Your task to perform on an android device: turn on data saver in the chrome app Image 0: 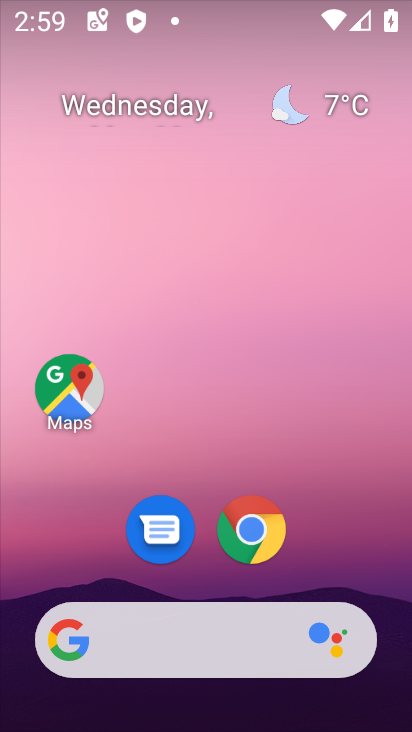
Step 0: click (254, 537)
Your task to perform on an android device: turn on data saver in the chrome app Image 1: 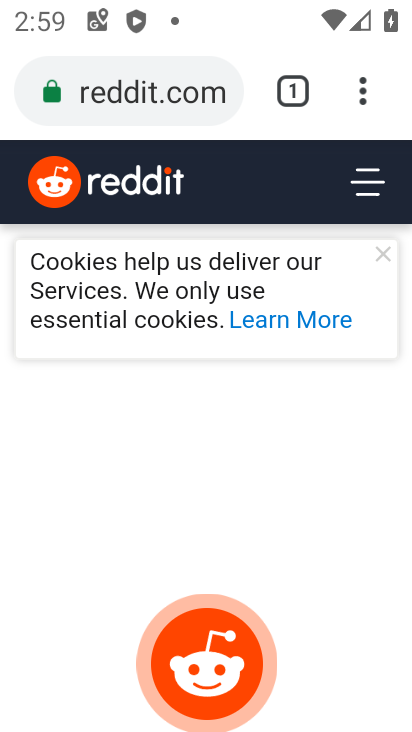
Step 1: click (364, 94)
Your task to perform on an android device: turn on data saver in the chrome app Image 2: 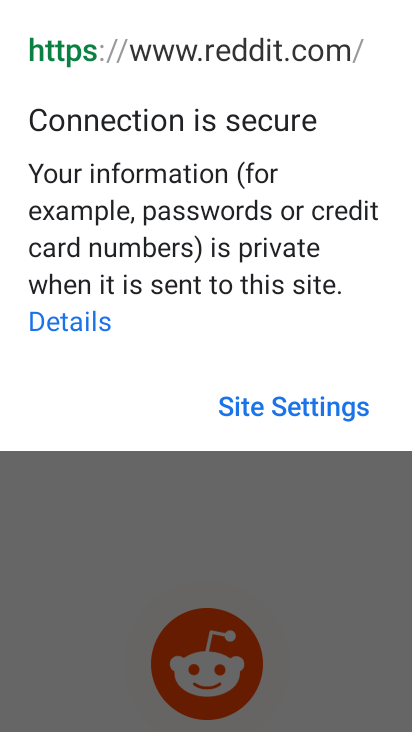
Step 2: press back button
Your task to perform on an android device: turn on data saver in the chrome app Image 3: 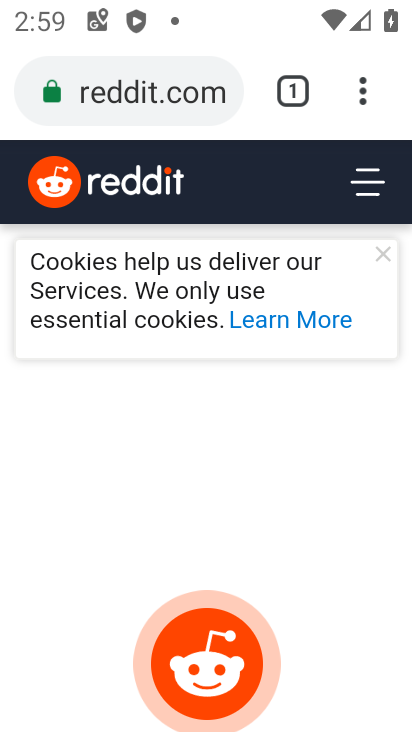
Step 3: click (354, 100)
Your task to perform on an android device: turn on data saver in the chrome app Image 4: 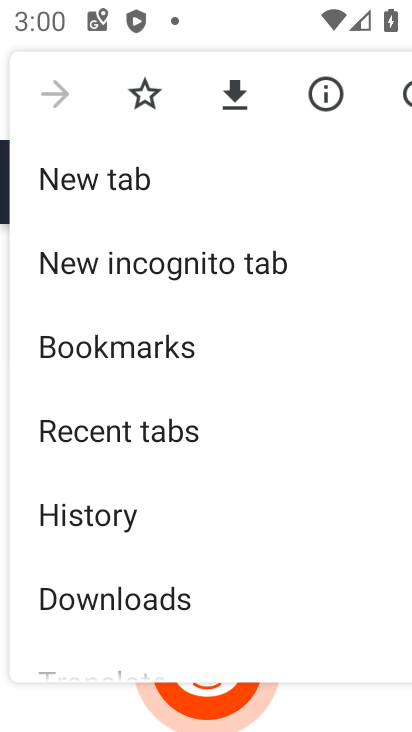
Step 4: drag from (134, 608) to (291, 64)
Your task to perform on an android device: turn on data saver in the chrome app Image 5: 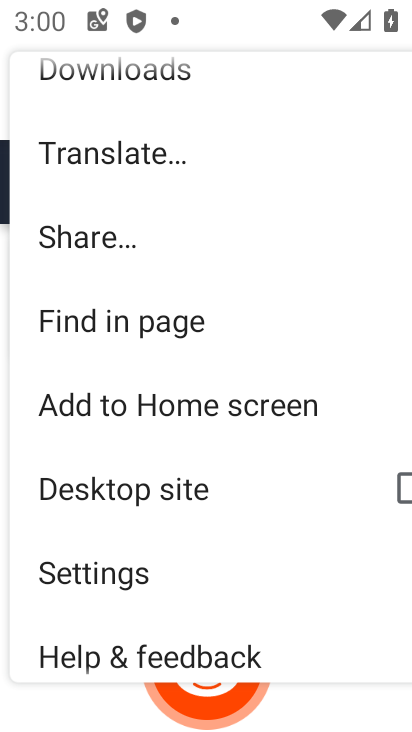
Step 5: click (126, 576)
Your task to perform on an android device: turn on data saver in the chrome app Image 6: 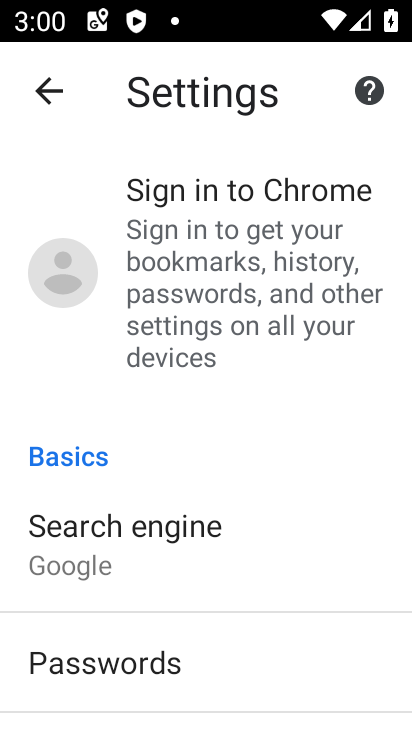
Step 6: drag from (155, 719) to (409, 49)
Your task to perform on an android device: turn on data saver in the chrome app Image 7: 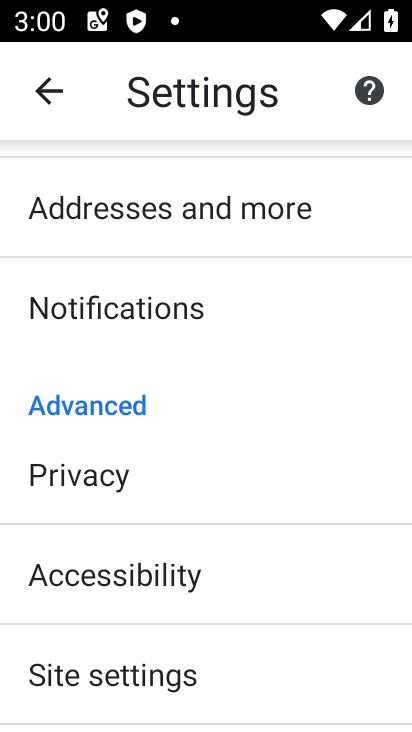
Step 7: drag from (144, 670) to (319, 144)
Your task to perform on an android device: turn on data saver in the chrome app Image 8: 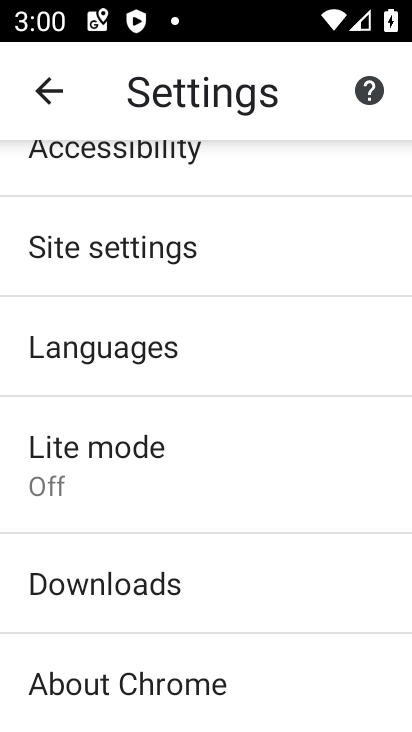
Step 8: click (182, 435)
Your task to perform on an android device: turn on data saver in the chrome app Image 9: 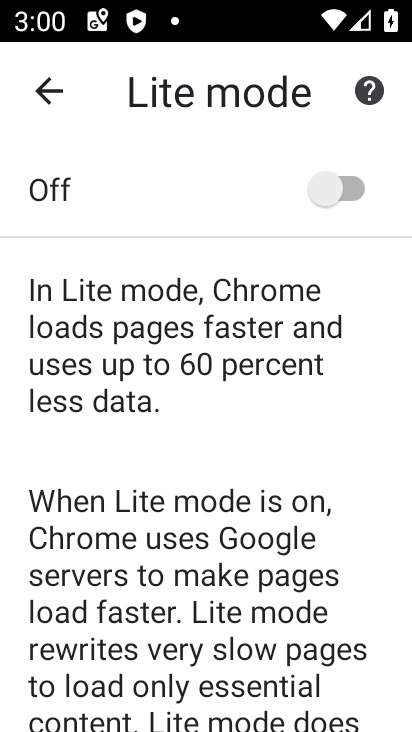
Step 9: click (330, 188)
Your task to perform on an android device: turn on data saver in the chrome app Image 10: 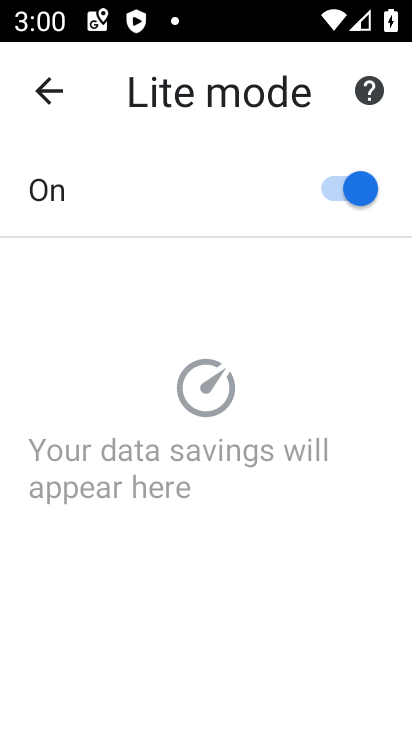
Step 10: task complete